Your task to perform on an android device: Open my contact list Image 0: 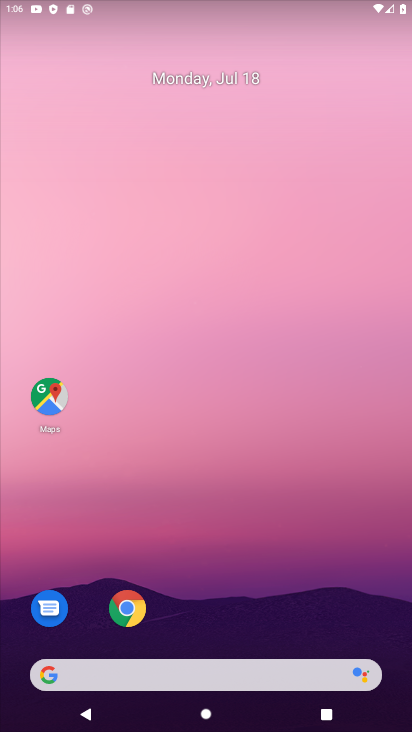
Step 0: press home button
Your task to perform on an android device: Open my contact list Image 1: 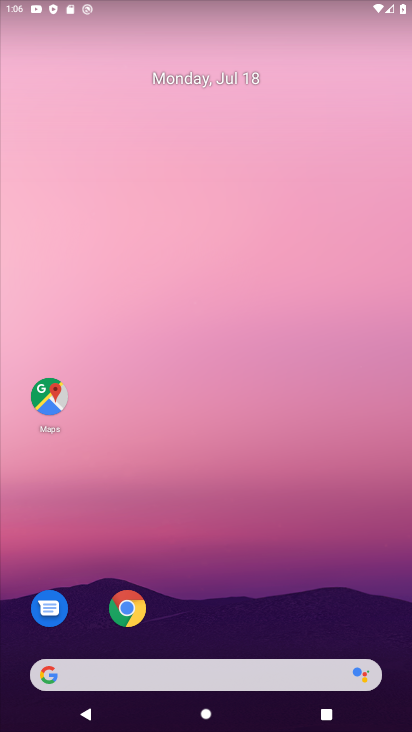
Step 1: drag from (359, 5) to (410, 431)
Your task to perform on an android device: Open my contact list Image 2: 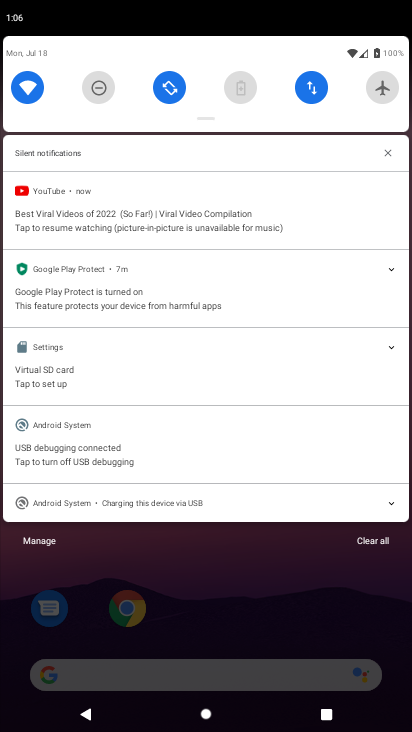
Step 2: press home button
Your task to perform on an android device: Open my contact list Image 3: 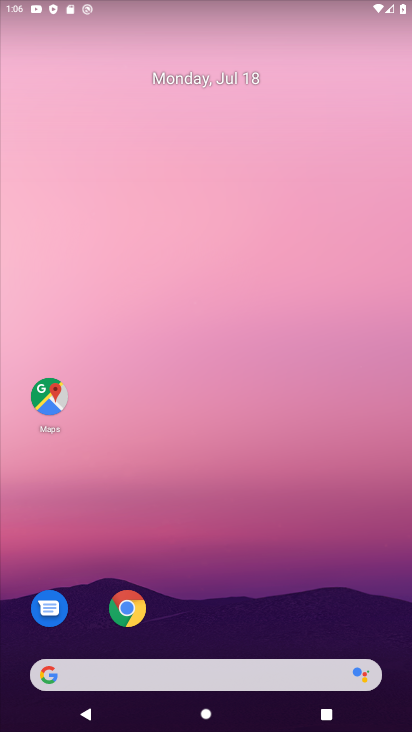
Step 3: drag from (315, 608) to (247, 278)
Your task to perform on an android device: Open my contact list Image 4: 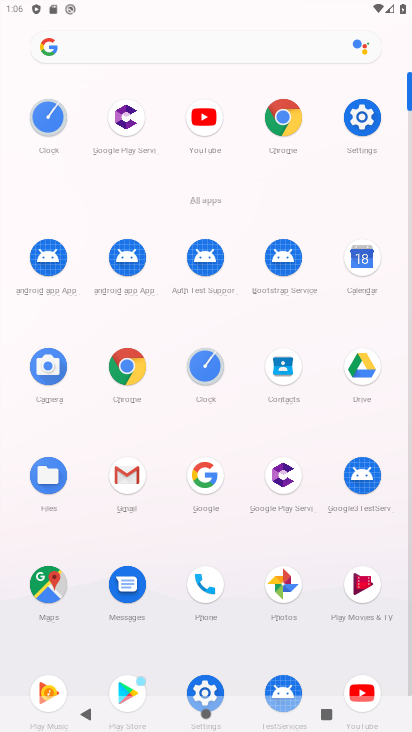
Step 4: click (283, 367)
Your task to perform on an android device: Open my contact list Image 5: 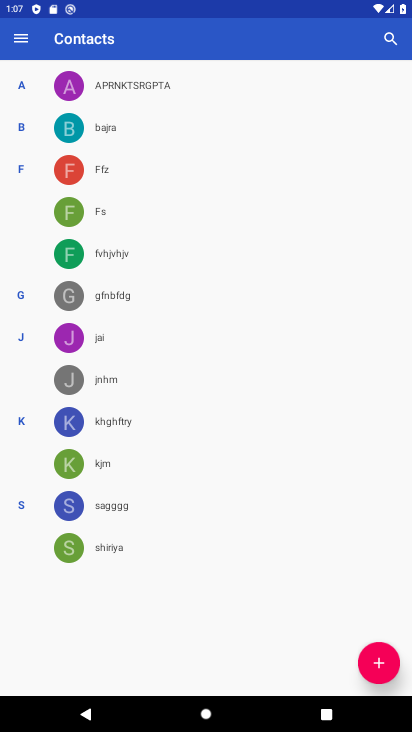
Step 5: task complete